Your task to perform on an android device: check the backup settings in the google photos Image 0: 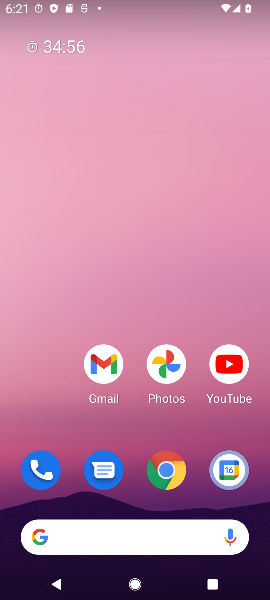
Step 0: drag from (115, 451) to (93, 9)
Your task to perform on an android device: check the backup settings in the google photos Image 1: 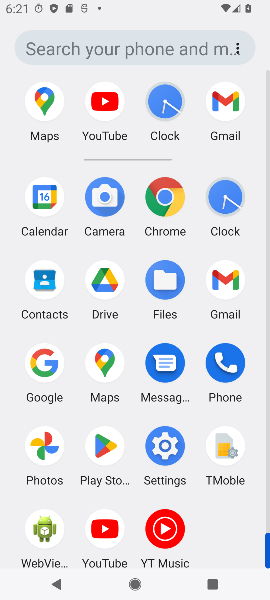
Step 1: click (46, 447)
Your task to perform on an android device: check the backup settings in the google photos Image 2: 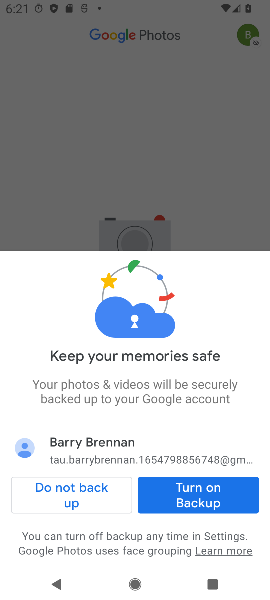
Step 2: click (172, 489)
Your task to perform on an android device: check the backup settings in the google photos Image 3: 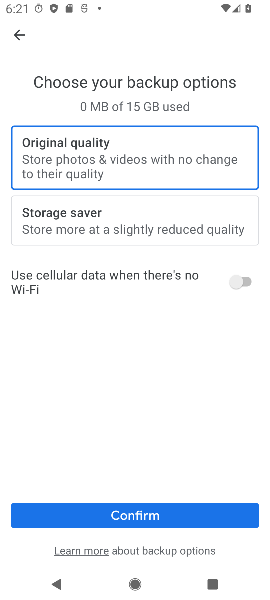
Step 3: click (143, 517)
Your task to perform on an android device: check the backup settings in the google photos Image 4: 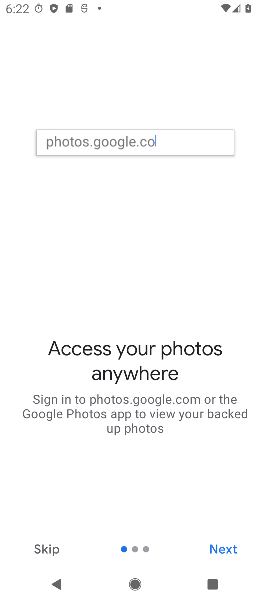
Step 4: click (211, 545)
Your task to perform on an android device: check the backup settings in the google photos Image 5: 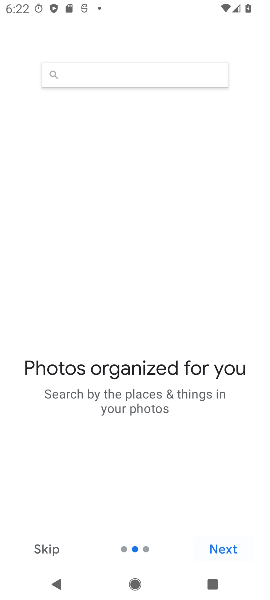
Step 5: click (211, 545)
Your task to perform on an android device: check the backup settings in the google photos Image 6: 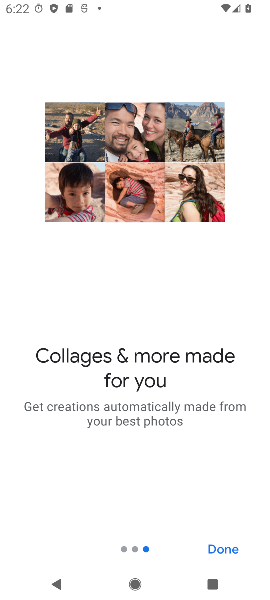
Step 6: click (211, 545)
Your task to perform on an android device: check the backup settings in the google photos Image 7: 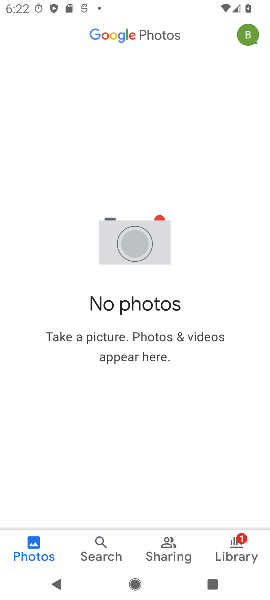
Step 7: click (247, 44)
Your task to perform on an android device: check the backup settings in the google photos Image 8: 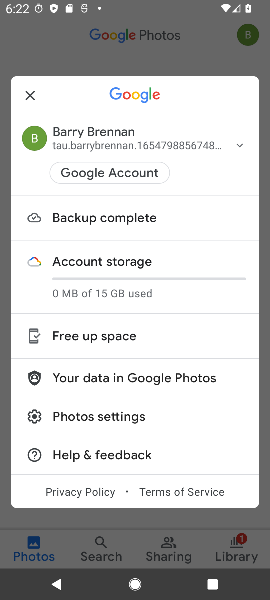
Step 8: click (65, 430)
Your task to perform on an android device: check the backup settings in the google photos Image 9: 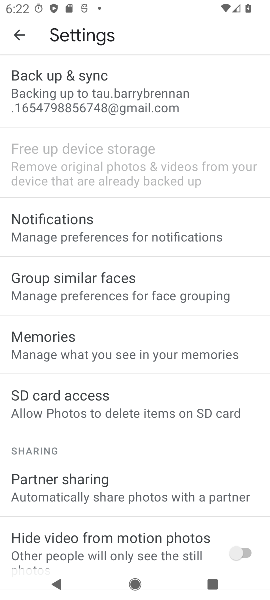
Step 9: click (100, 85)
Your task to perform on an android device: check the backup settings in the google photos Image 10: 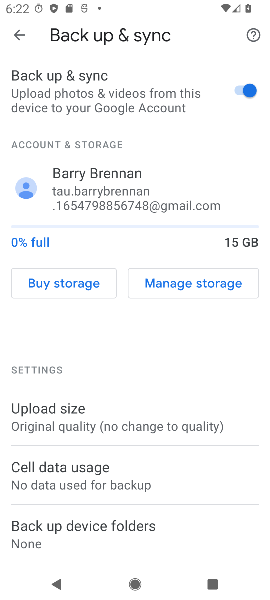
Step 10: task complete